Your task to perform on an android device: Search for flights from Mexico city to Boston Image 0: 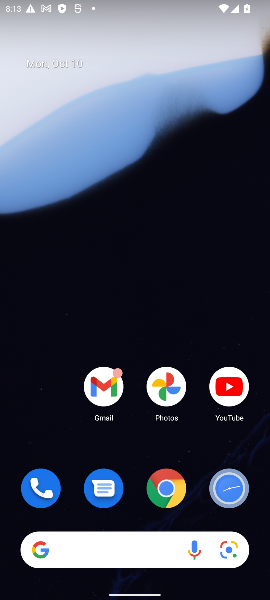
Step 0: drag from (132, 456) to (169, 131)
Your task to perform on an android device: Search for flights from Mexico city to Boston Image 1: 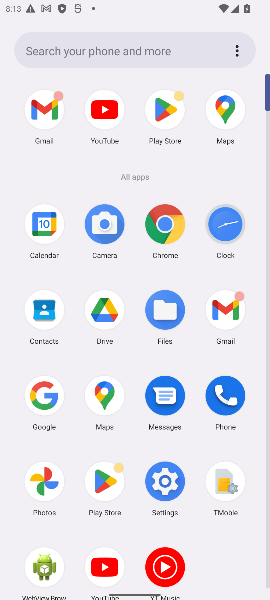
Step 1: click (159, 224)
Your task to perform on an android device: Search for flights from Mexico city to Boston Image 2: 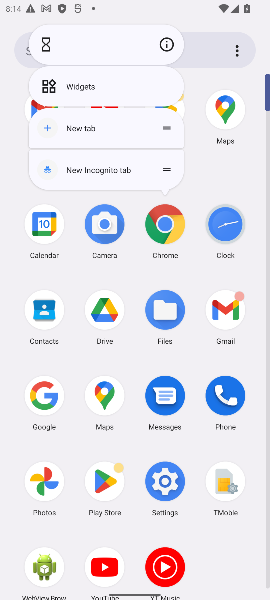
Step 2: click (165, 226)
Your task to perform on an android device: Search for flights from Mexico city to Boston Image 3: 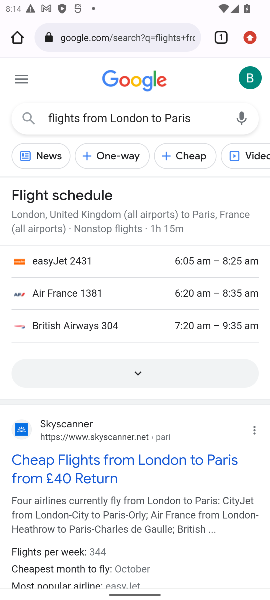
Step 3: click (160, 224)
Your task to perform on an android device: Search for flights from Mexico city to Boston Image 4: 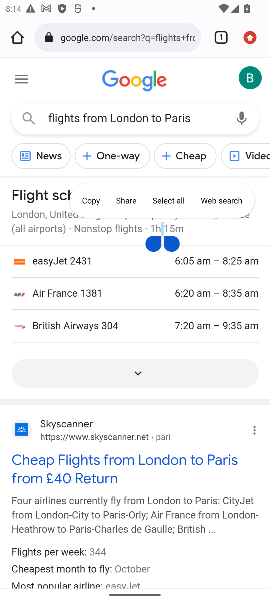
Step 4: click (138, 121)
Your task to perform on an android device: Search for flights from Mexico city to Boston Image 5: 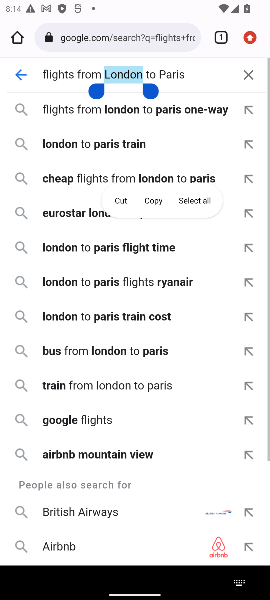
Step 5: click (246, 67)
Your task to perform on an android device: Search for flights from Mexico city to Boston Image 6: 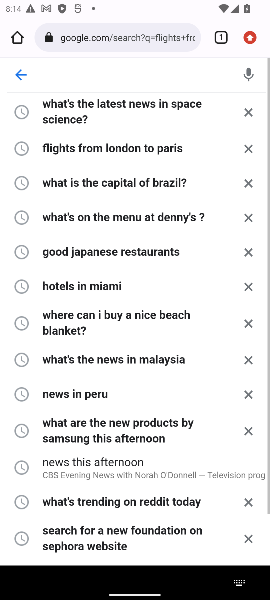
Step 6: click (131, 40)
Your task to perform on an android device: Search for flights from Mexico city to Boston Image 7: 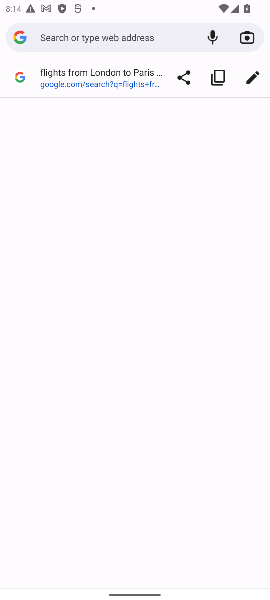
Step 7: type "flights from Mexico city to Boston"
Your task to perform on an android device: Search for flights from Mexico city to Boston Image 8: 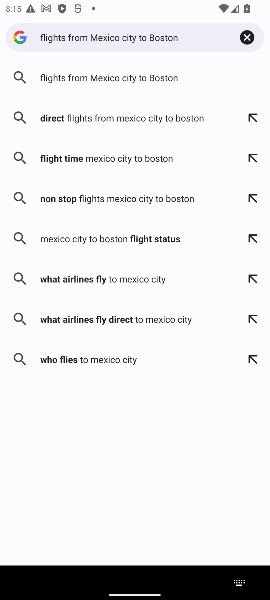
Step 8: press enter
Your task to perform on an android device: Search for flights from Mexico city to Boston Image 9: 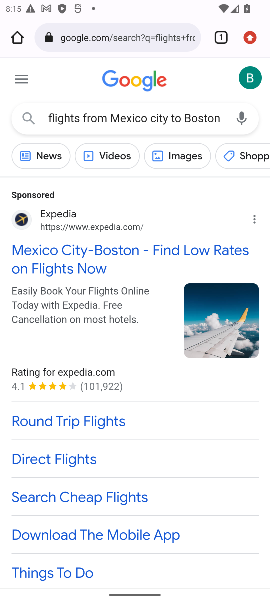
Step 9: click (144, 254)
Your task to perform on an android device: Search for flights from Mexico city to Boston Image 10: 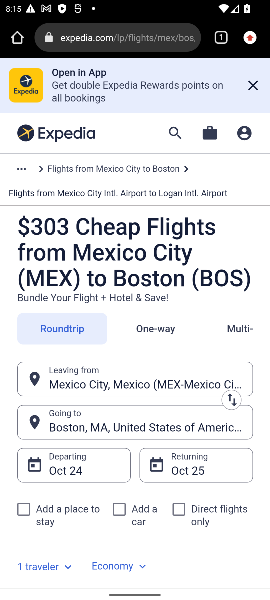
Step 10: task complete